Your task to perform on an android device: snooze an email in the gmail app Image 0: 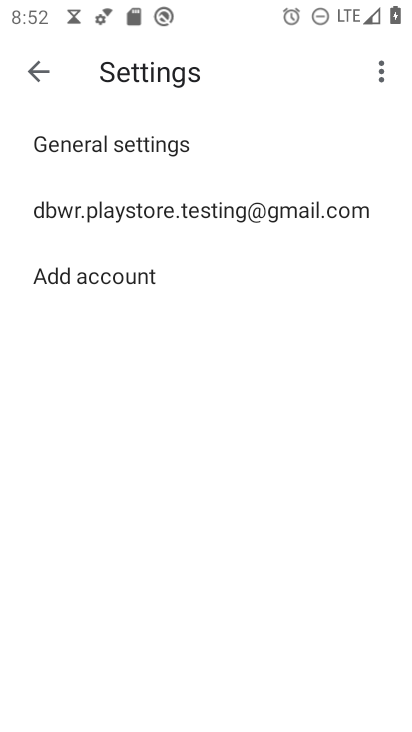
Step 0: press home button
Your task to perform on an android device: snooze an email in the gmail app Image 1: 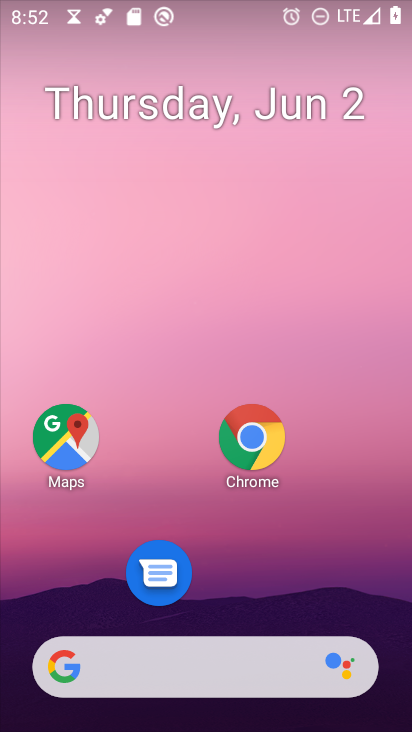
Step 1: drag from (188, 673) to (366, 60)
Your task to perform on an android device: snooze an email in the gmail app Image 2: 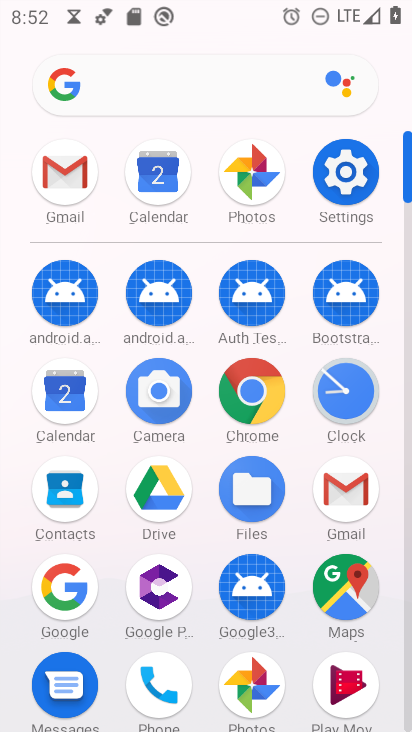
Step 2: click (62, 191)
Your task to perform on an android device: snooze an email in the gmail app Image 3: 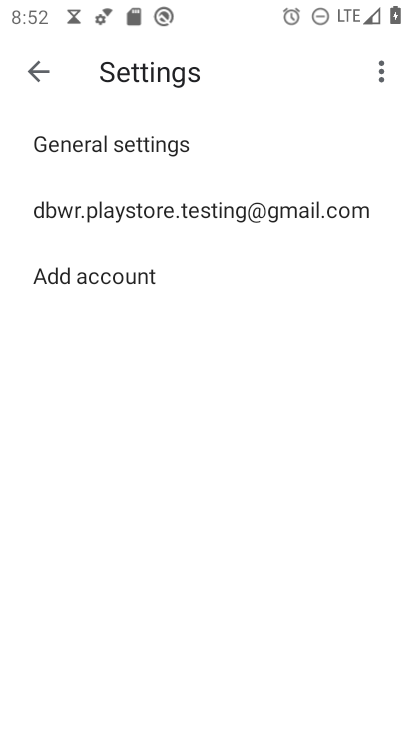
Step 3: click (34, 74)
Your task to perform on an android device: snooze an email in the gmail app Image 4: 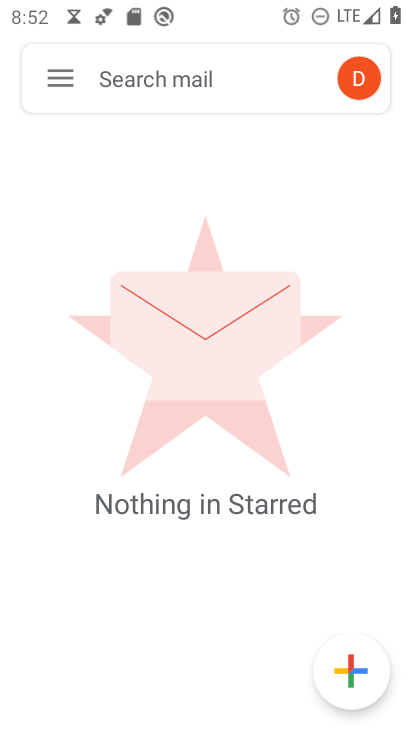
Step 4: click (55, 82)
Your task to perform on an android device: snooze an email in the gmail app Image 5: 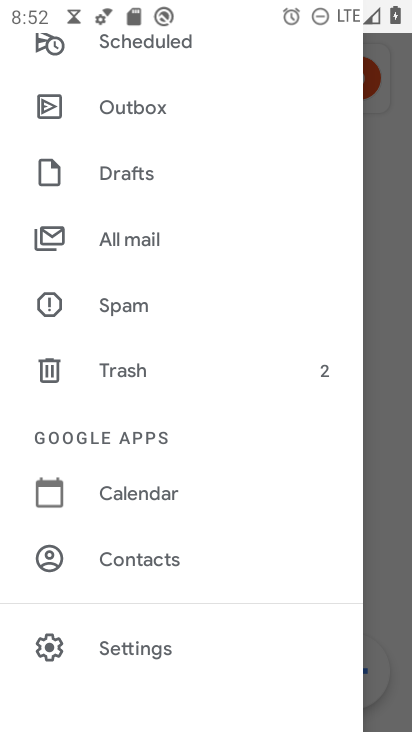
Step 5: click (150, 243)
Your task to perform on an android device: snooze an email in the gmail app Image 6: 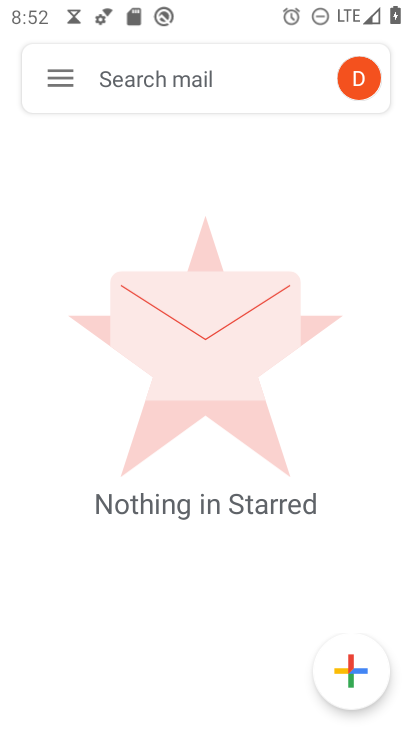
Step 6: task complete